Your task to perform on an android device: Open Google Maps Image 0: 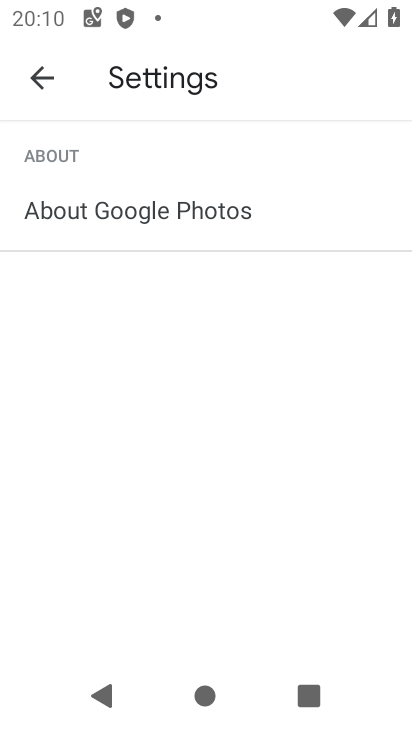
Step 0: press home button
Your task to perform on an android device: Open Google Maps Image 1: 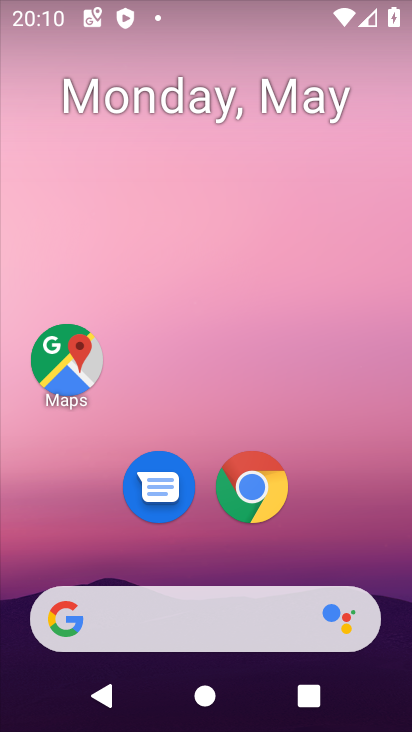
Step 1: drag from (388, 562) to (375, 198)
Your task to perform on an android device: Open Google Maps Image 2: 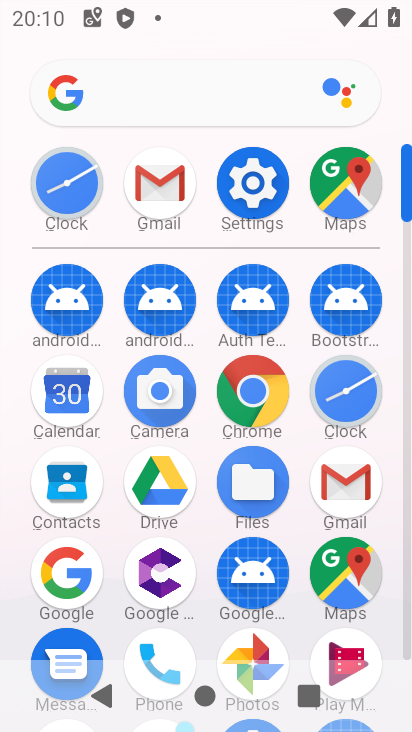
Step 2: click (345, 578)
Your task to perform on an android device: Open Google Maps Image 3: 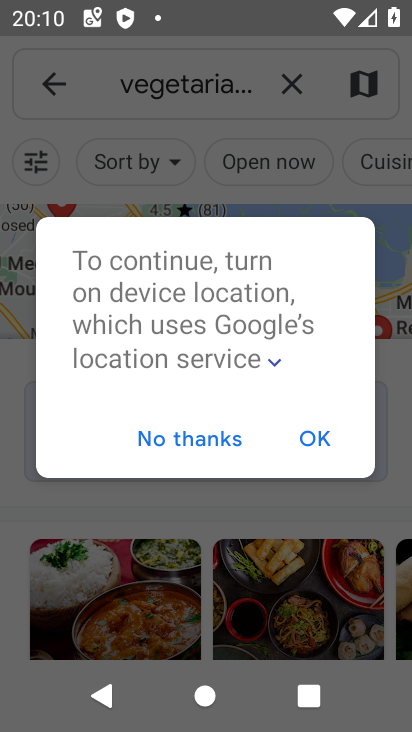
Step 3: task complete